Your task to perform on an android device: Empty the shopping cart on walmart.com. Search for "logitech g502" on walmart.com, select the first entry, and add it to the cart. Image 0: 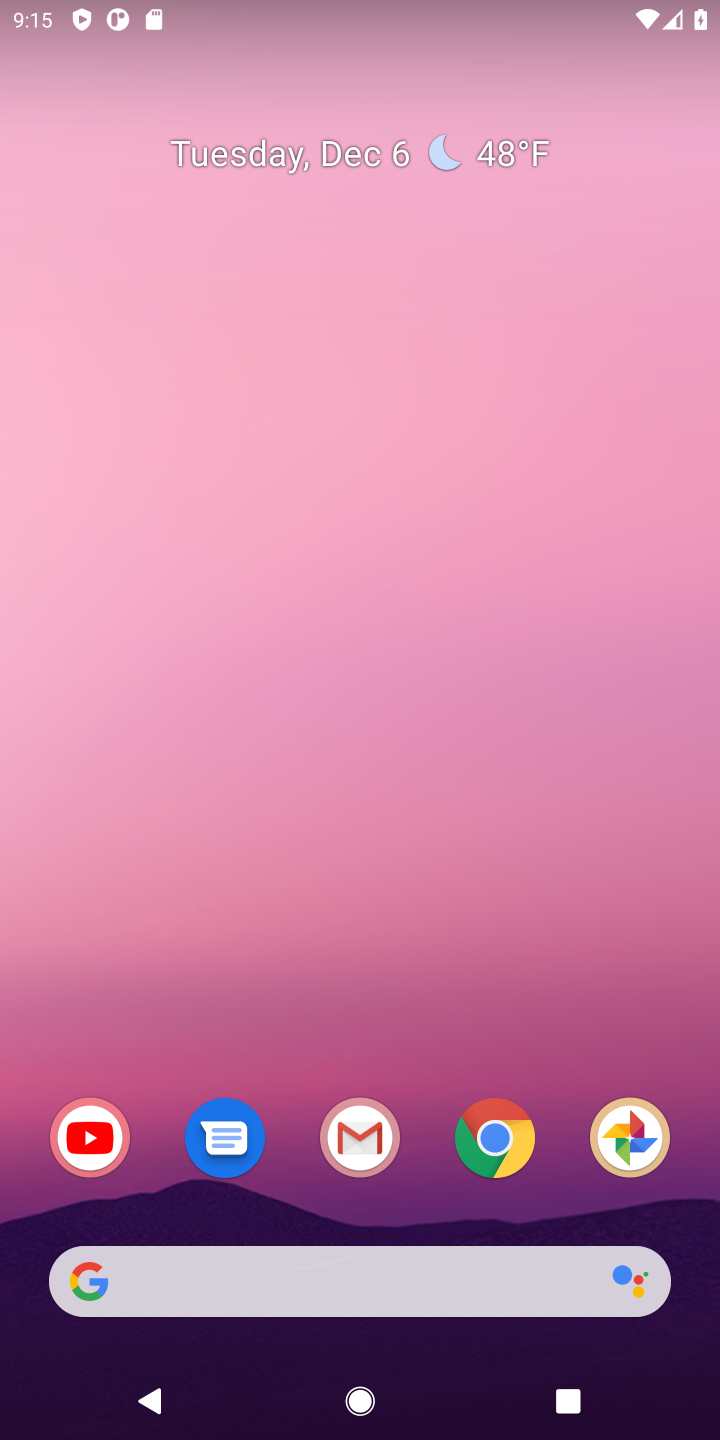
Step 0: click (491, 1152)
Your task to perform on an android device: Empty the shopping cart on walmart.com. Search for "logitech g502" on walmart.com, select the first entry, and add it to the cart. Image 1: 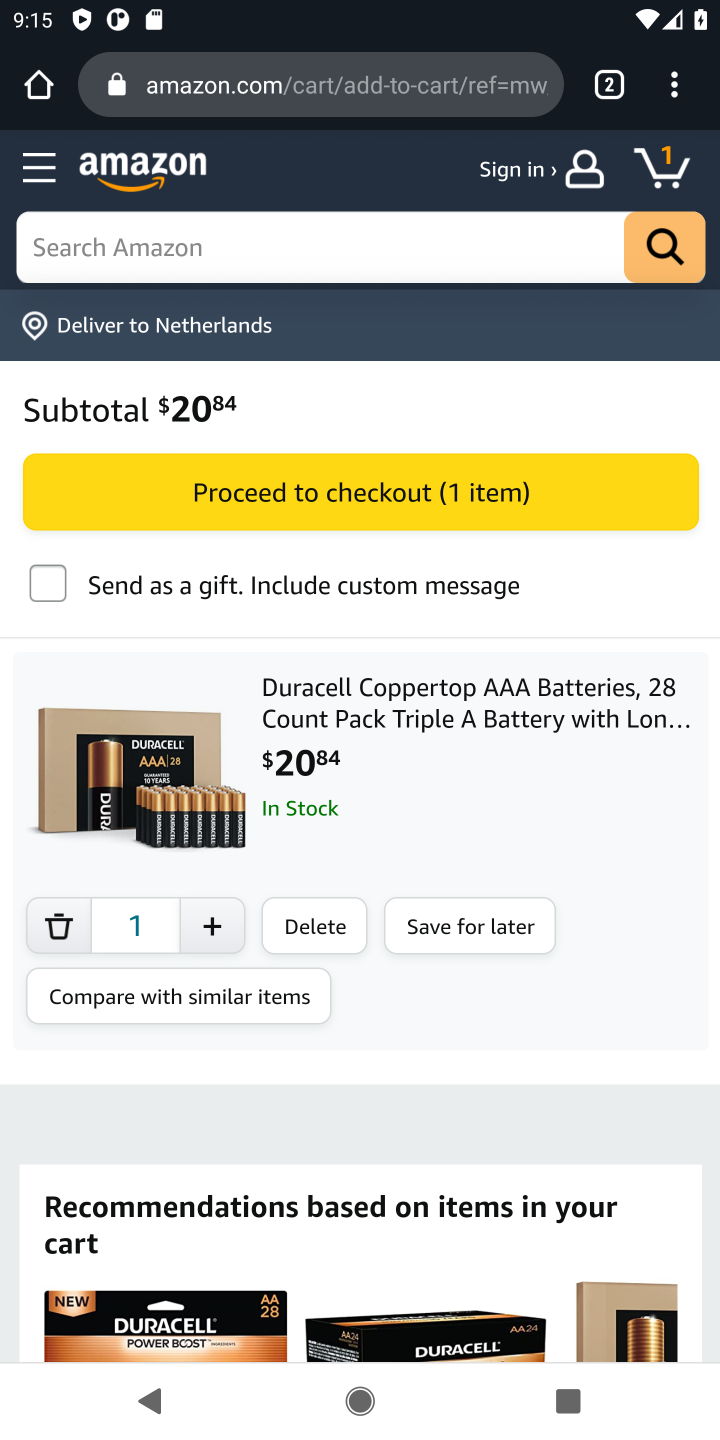
Step 1: click (235, 83)
Your task to perform on an android device: Empty the shopping cart on walmart.com. Search for "logitech g502" on walmart.com, select the first entry, and add it to the cart. Image 2: 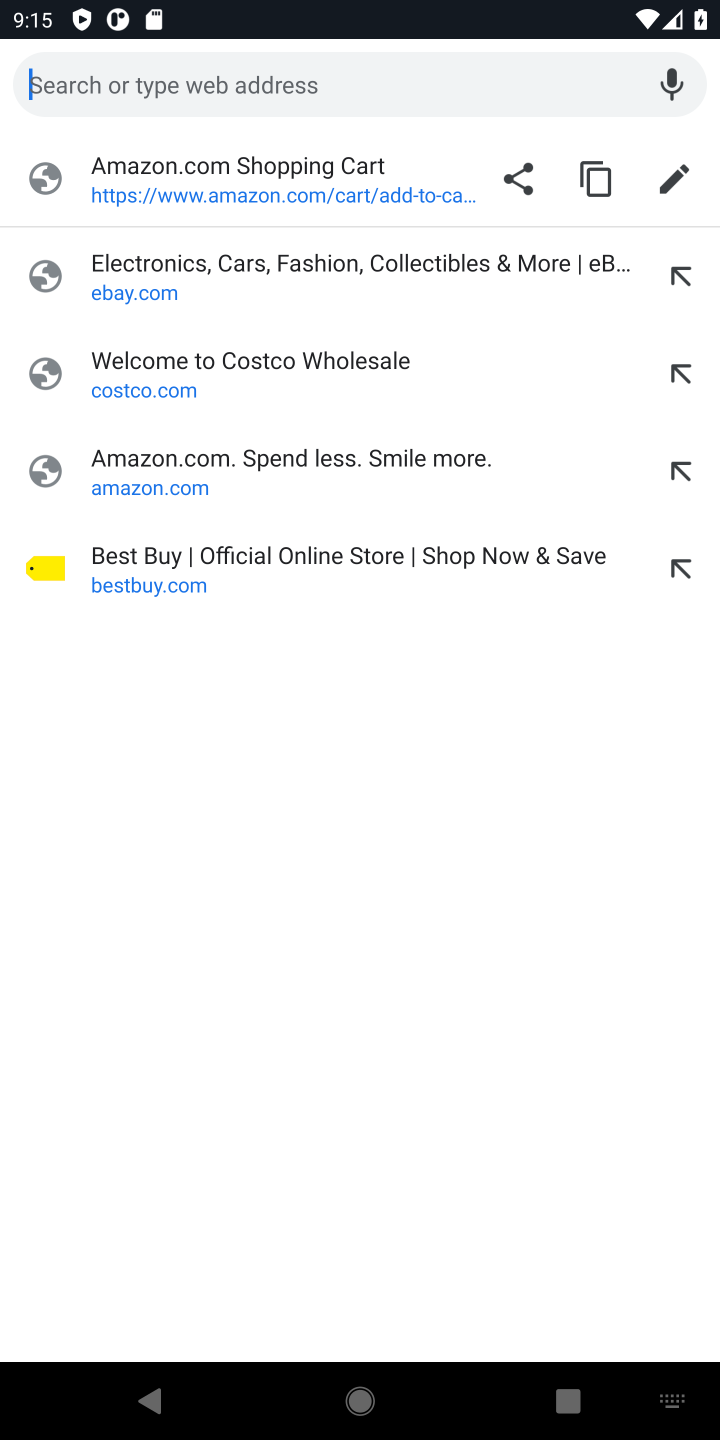
Step 2: type "walmart.com"
Your task to perform on an android device: Empty the shopping cart on walmart.com. Search for "logitech g502" on walmart.com, select the first entry, and add it to the cart. Image 3: 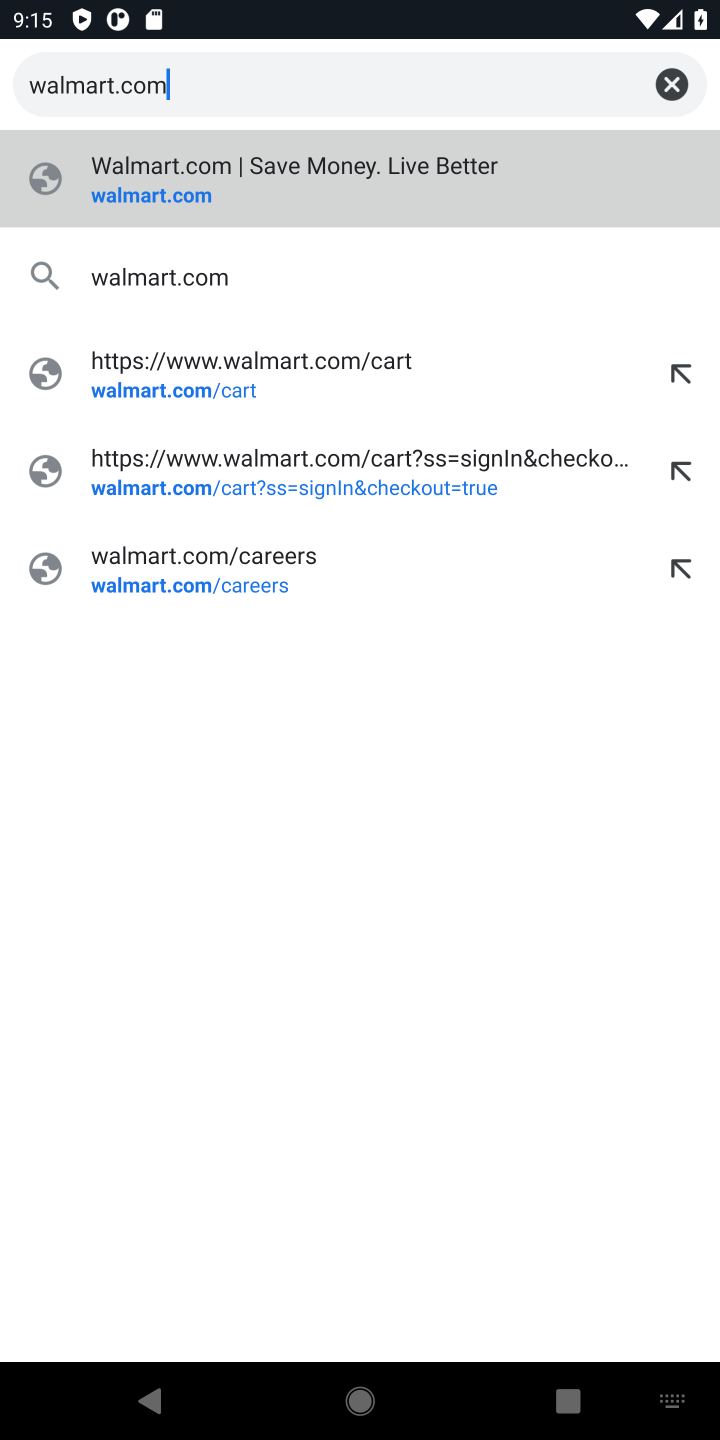
Step 3: click (160, 192)
Your task to perform on an android device: Empty the shopping cart on walmart.com. Search for "logitech g502" on walmart.com, select the first entry, and add it to the cart. Image 4: 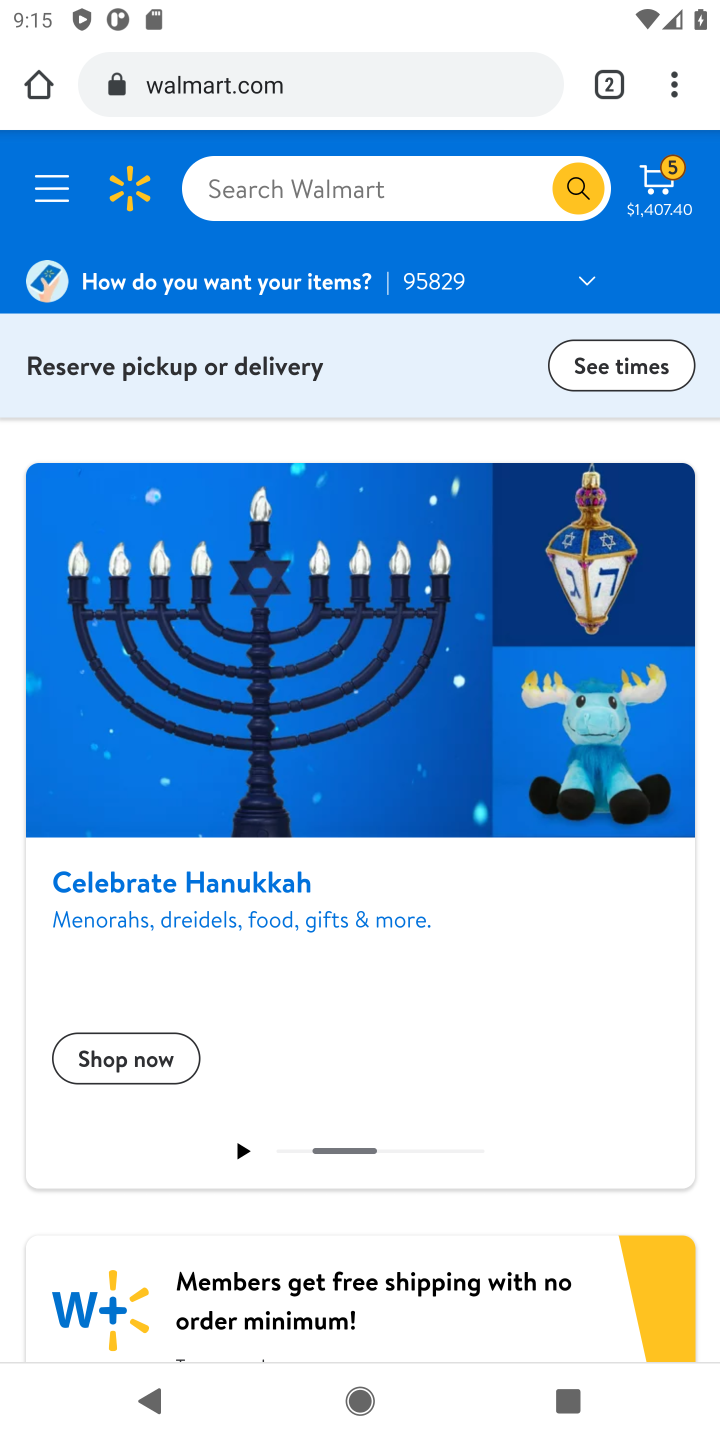
Step 4: click (660, 205)
Your task to perform on an android device: Empty the shopping cart on walmart.com. Search for "logitech g502" on walmart.com, select the first entry, and add it to the cart. Image 5: 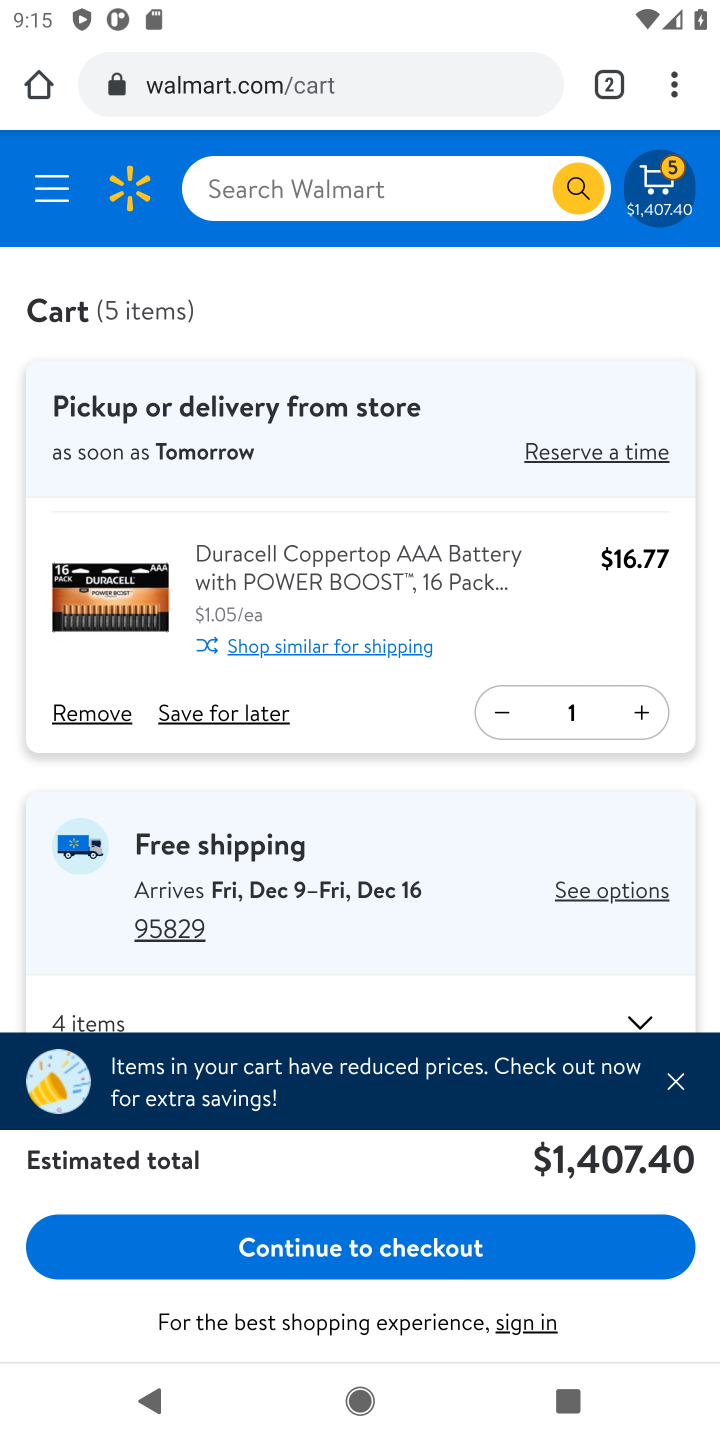
Step 5: click (76, 720)
Your task to perform on an android device: Empty the shopping cart on walmart.com. Search for "logitech g502" on walmart.com, select the first entry, and add it to the cart. Image 6: 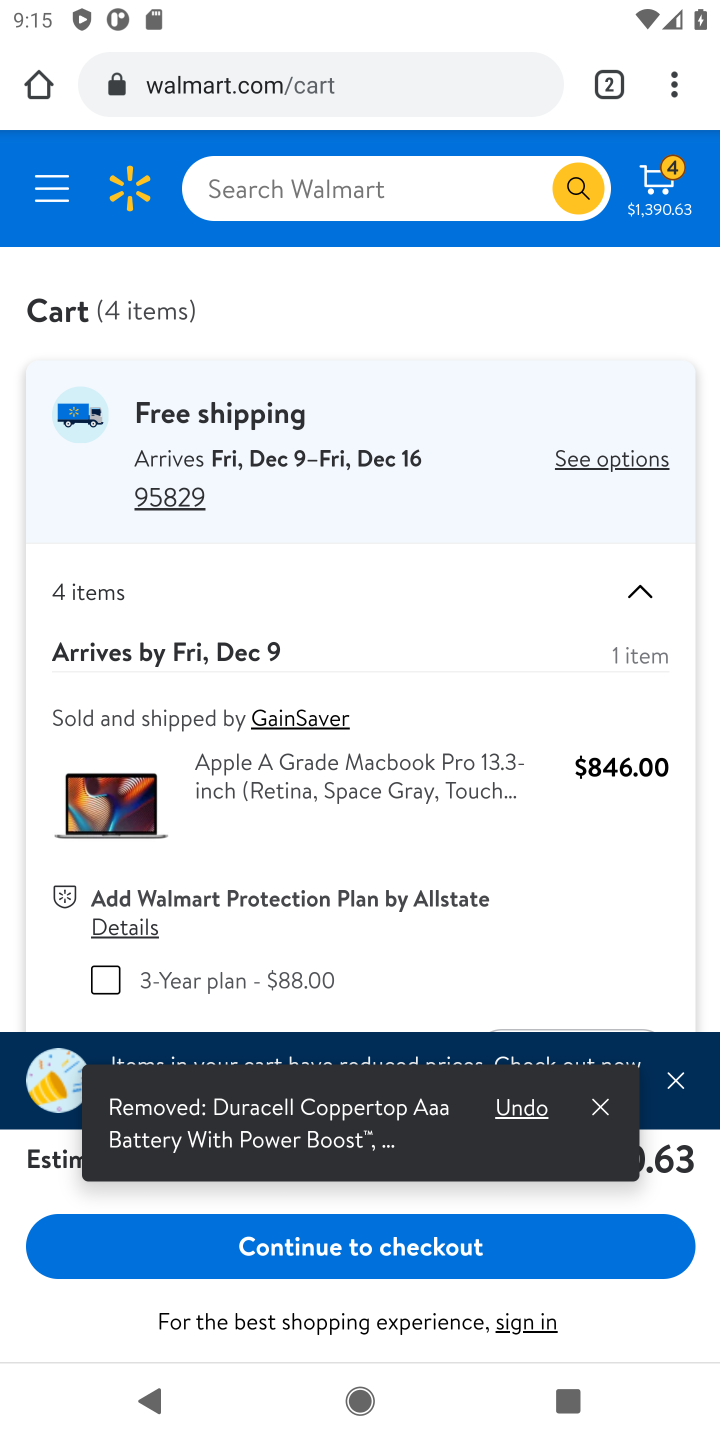
Step 6: drag from (322, 813) to (299, 338)
Your task to perform on an android device: Empty the shopping cart on walmart.com. Search for "logitech g502" on walmart.com, select the first entry, and add it to the cart. Image 7: 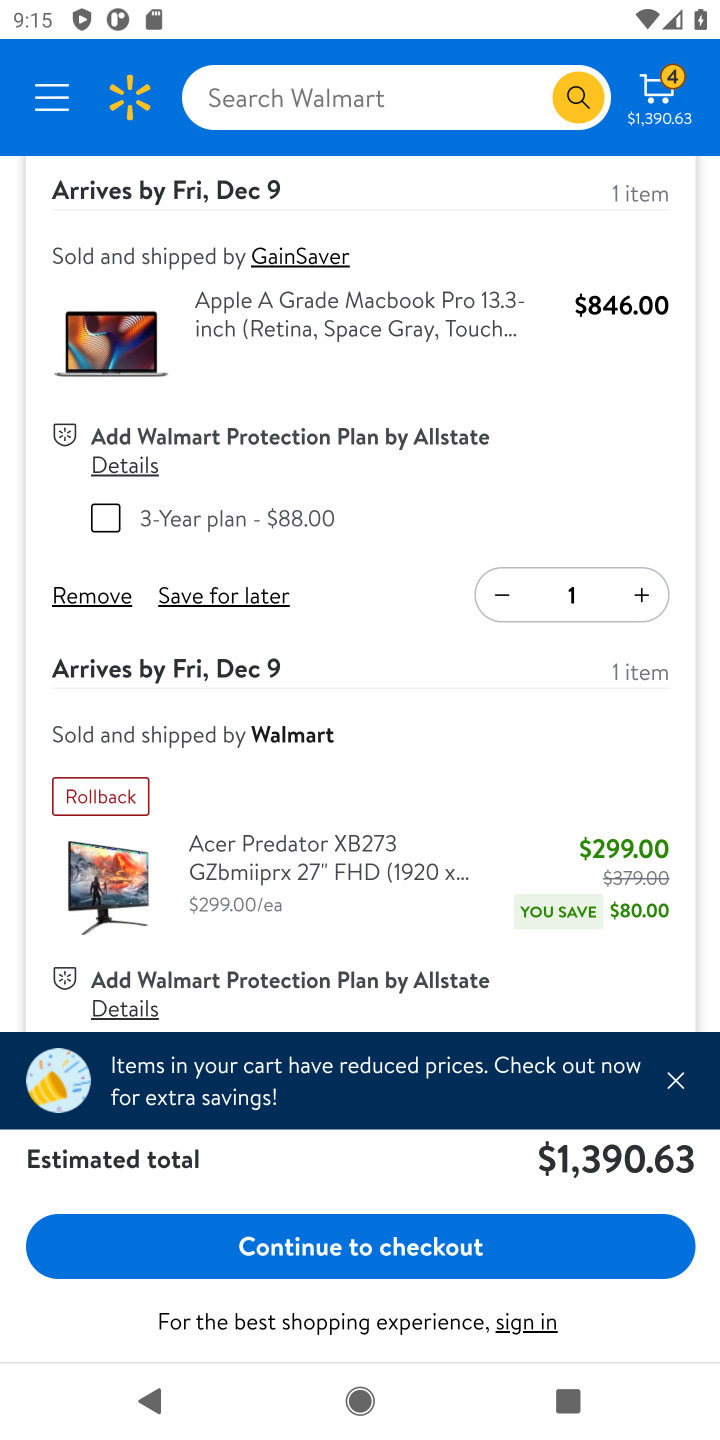
Step 7: click (88, 601)
Your task to perform on an android device: Empty the shopping cart on walmart.com. Search for "logitech g502" on walmart.com, select the first entry, and add it to the cart. Image 8: 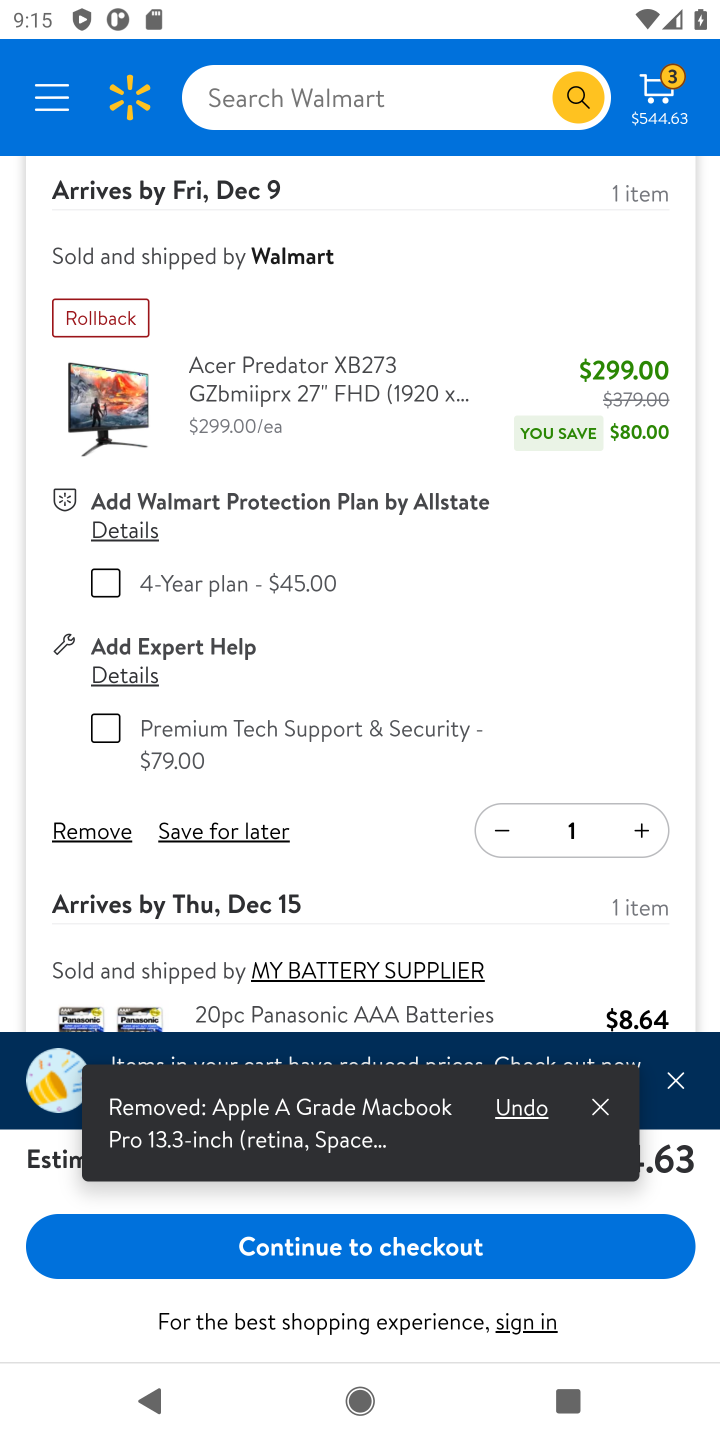
Step 8: click (79, 838)
Your task to perform on an android device: Empty the shopping cart on walmart.com. Search for "logitech g502" on walmart.com, select the first entry, and add it to the cart. Image 9: 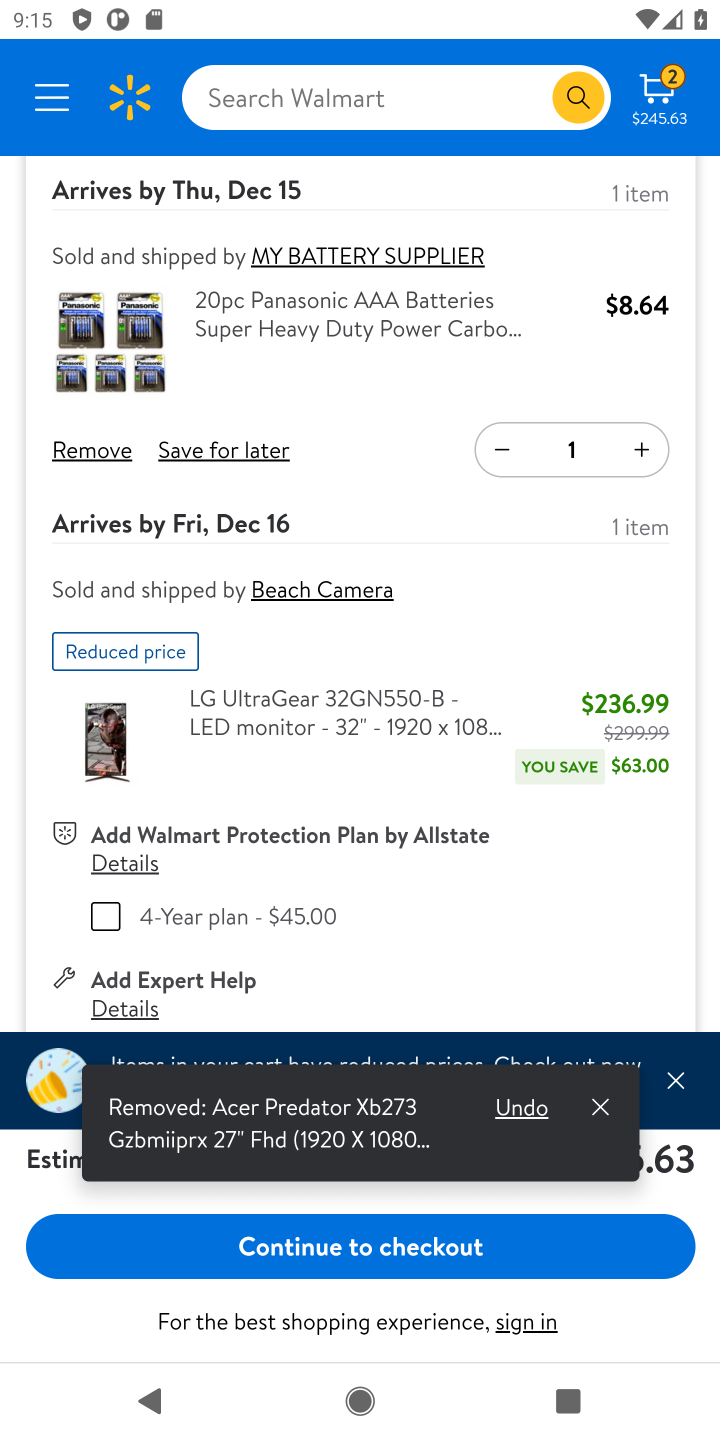
Step 9: drag from (355, 838) to (367, 540)
Your task to perform on an android device: Empty the shopping cart on walmart.com. Search for "logitech g502" on walmart.com, select the first entry, and add it to the cart. Image 10: 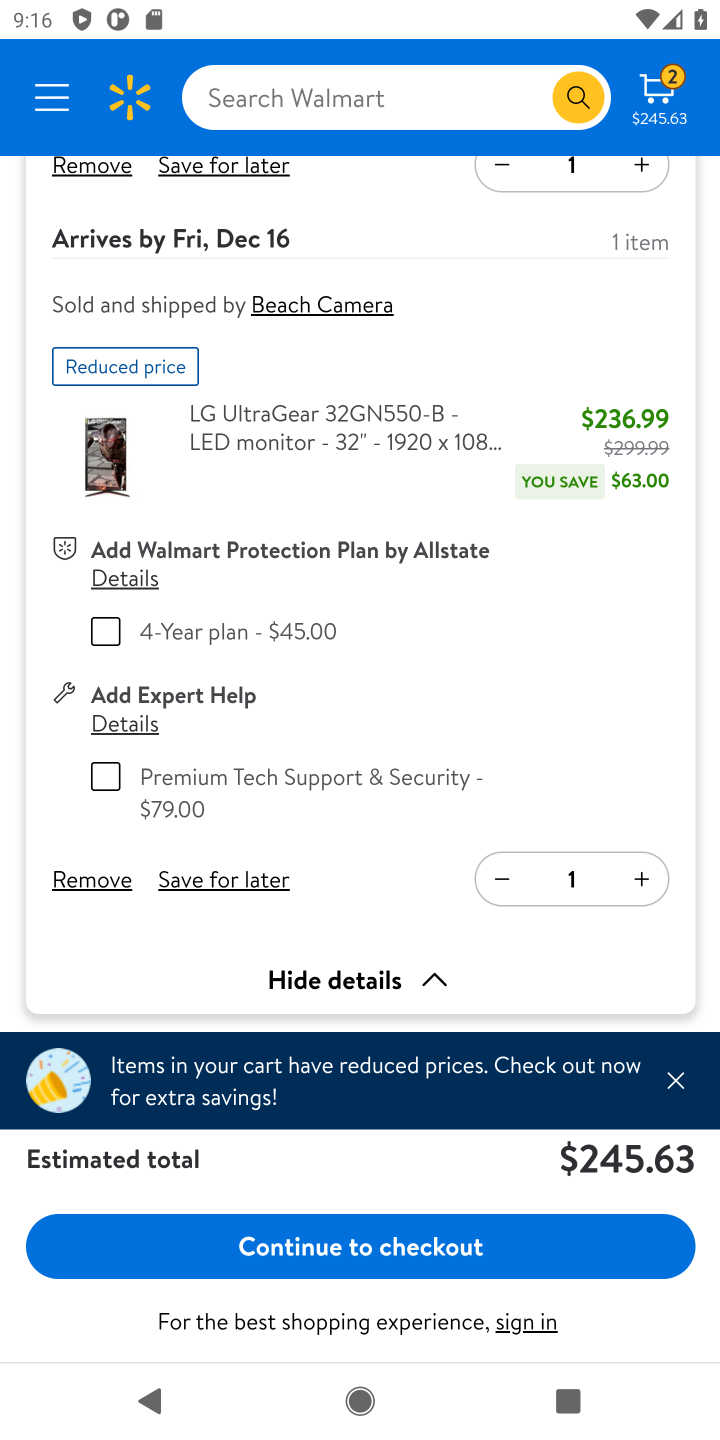
Step 10: click (79, 170)
Your task to perform on an android device: Empty the shopping cart on walmart.com. Search for "logitech g502" on walmart.com, select the first entry, and add it to the cart. Image 11: 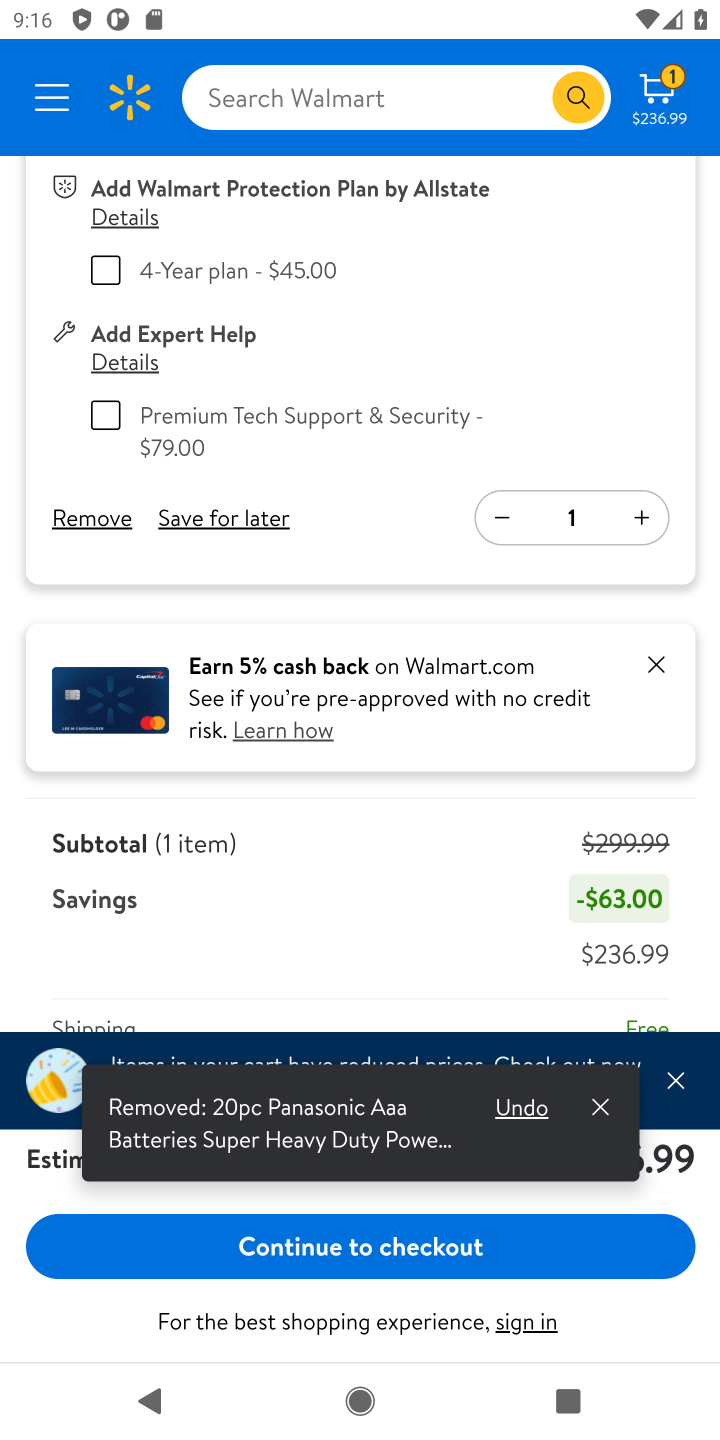
Step 11: click (77, 515)
Your task to perform on an android device: Empty the shopping cart on walmart.com. Search for "logitech g502" on walmart.com, select the first entry, and add it to the cart. Image 12: 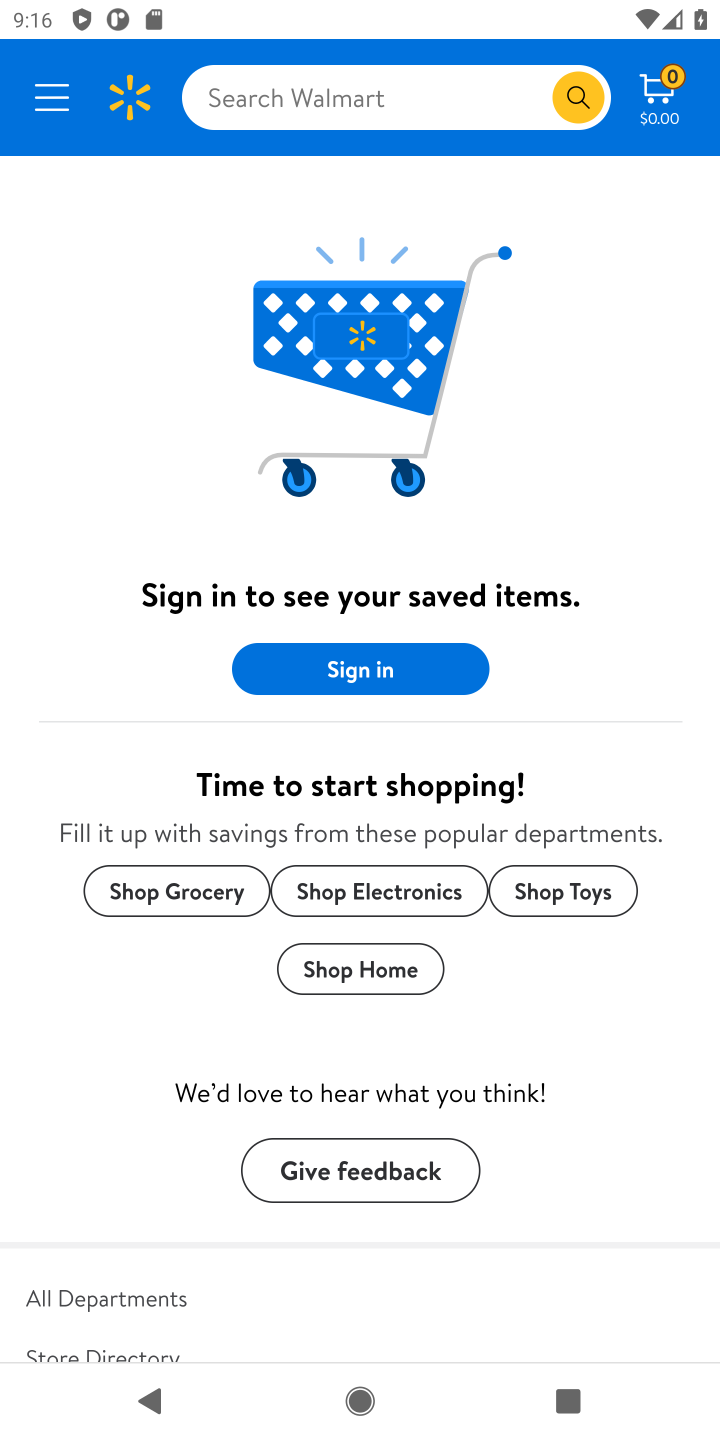
Step 12: click (351, 109)
Your task to perform on an android device: Empty the shopping cart on walmart.com. Search for "logitech g502" on walmart.com, select the first entry, and add it to the cart. Image 13: 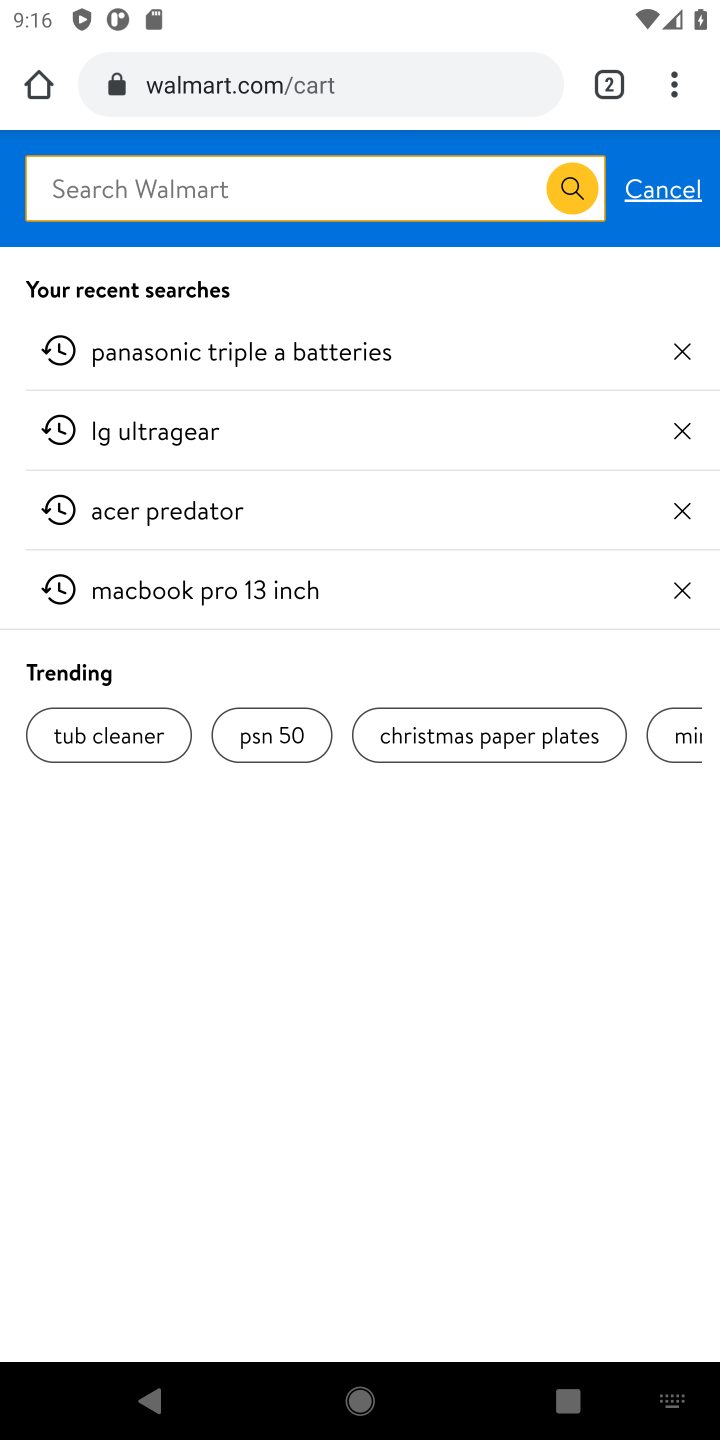
Step 13: type "logitech g502"
Your task to perform on an android device: Empty the shopping cart on walmart.com. Search for "logitech g502" on walmart.com, select the first entry, and add it to the cart. Image 14: 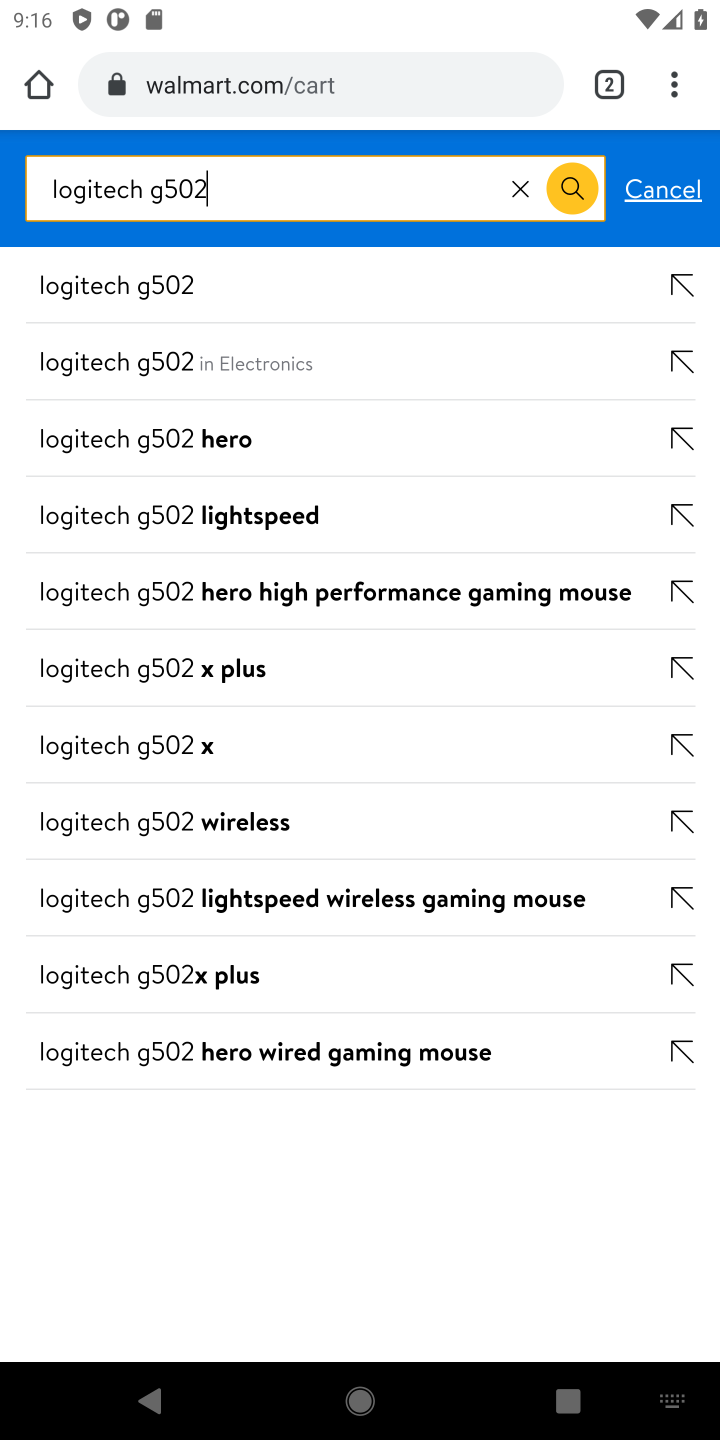
Step 14: click (130, 307)
Your task to perform on an android device: Empty the shopping cart on walmart.com. Search for "logitech g502" on walmart.com, select the first entry, and add it to the cart. Image 15: 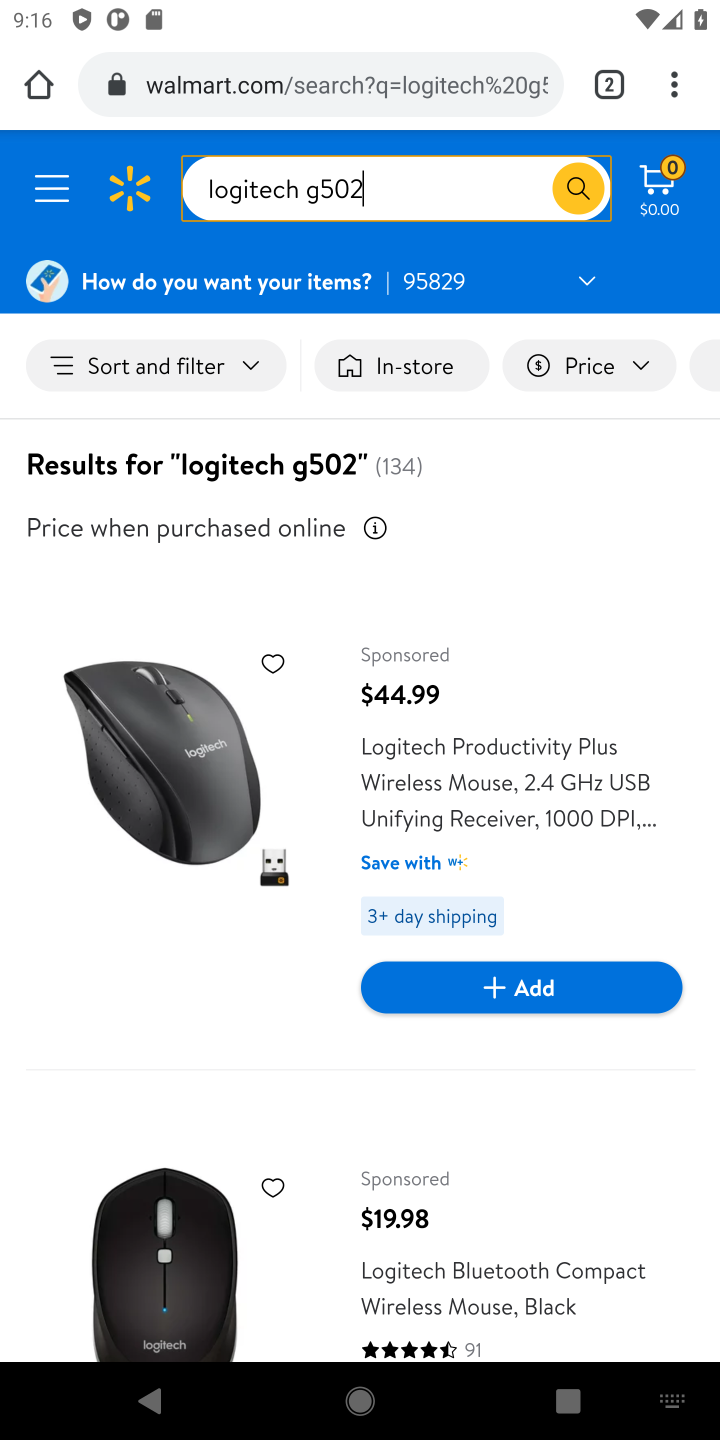
Step 15: task complete